Your task to perform on an android device: Go to network settings Image 0: 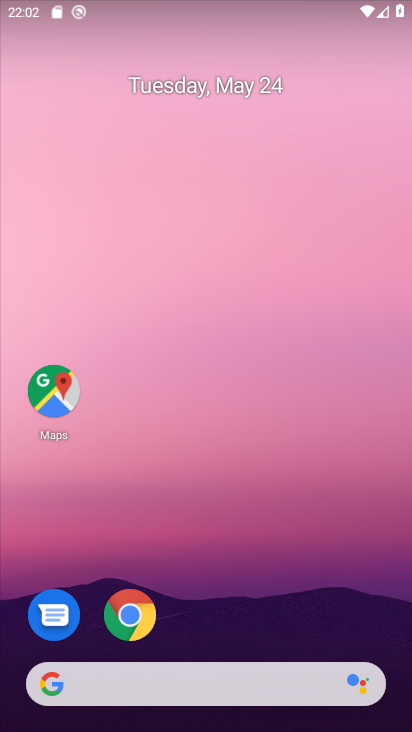
Step 0: drag from (272, 577) to (273, 159)
Your task to perform on an android device: Go to network settings Image 1: 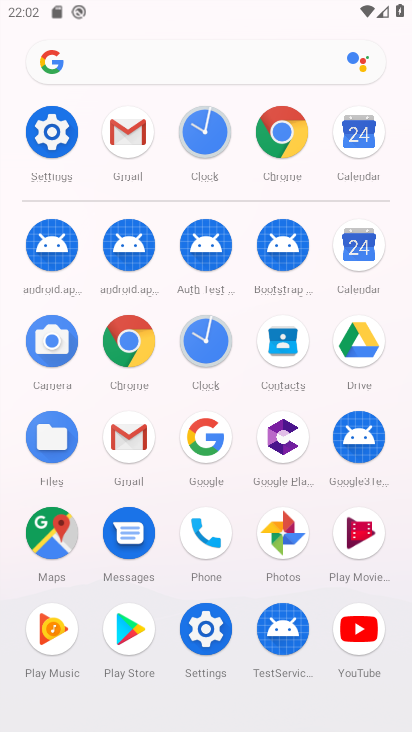
Step 1: click (49, 136)
Your task to perform on an android device: Go to network settings Image 2: 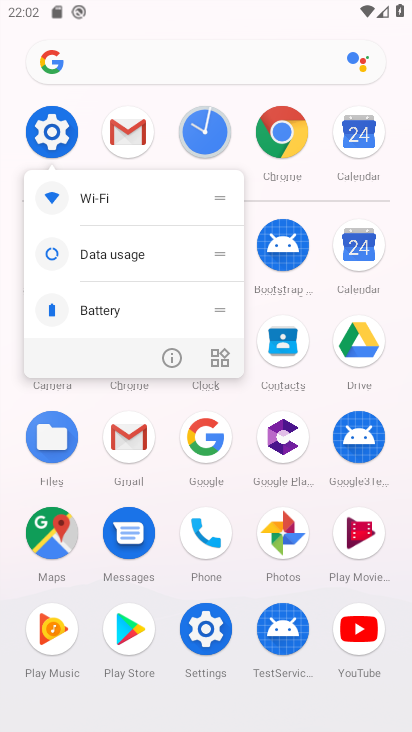
Step 2: click (46, 138)
Your task to perform on an android device: Go to network settings Image 3: 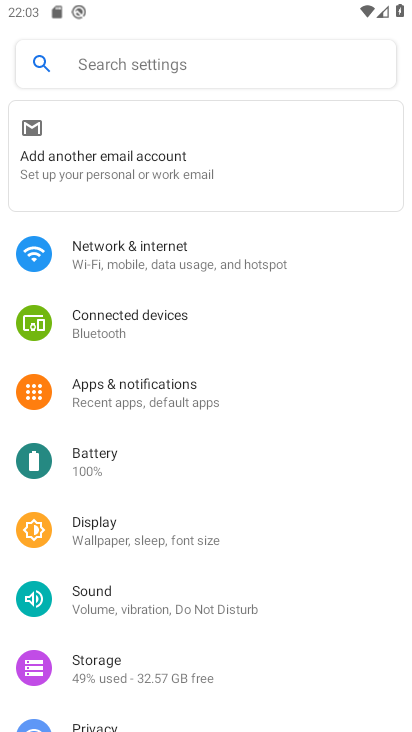
Step 3: task complete